Your task to perform on an android device: turn pop-ups off in chrome Image 0: 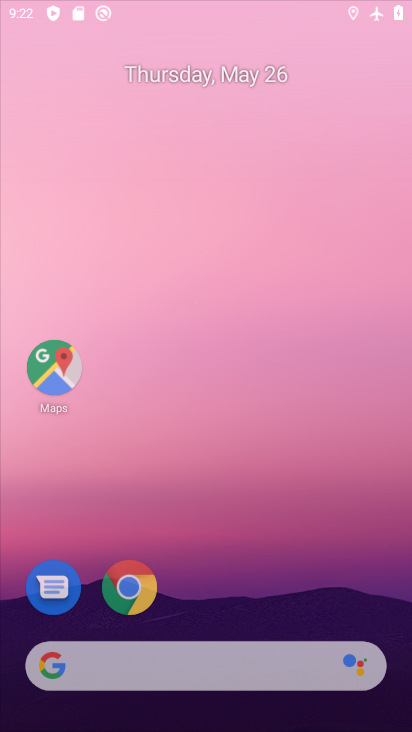
Step 0: drag from (299, 336) to (334, 95)
Your task to perform on an android device: turn pop-ups off in chrome Image 1: 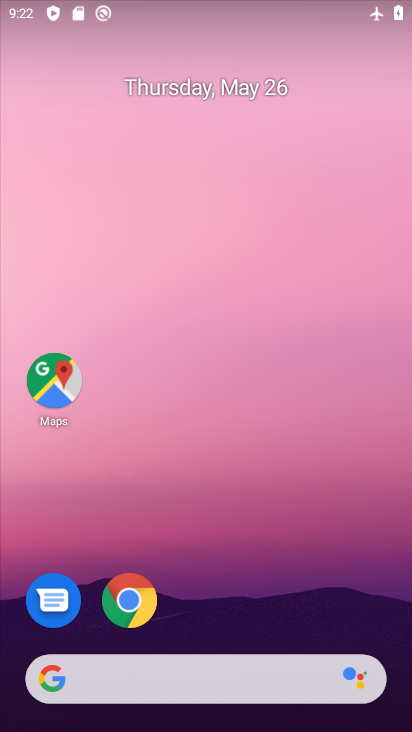
Step 1: drag from (255, 552) to (341, 144)
Your task to perform on an android device: turn pop-ups off in chrome Image 2: 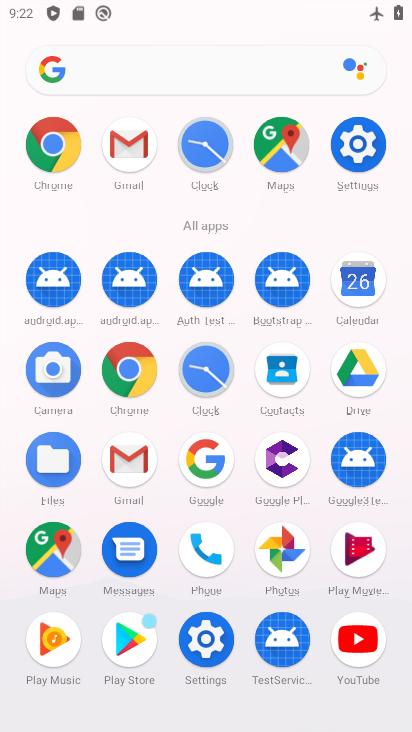
Step 2: click (71, 136)
Your task to perform on an android device: turn pop-ups off in chrome Image 3: 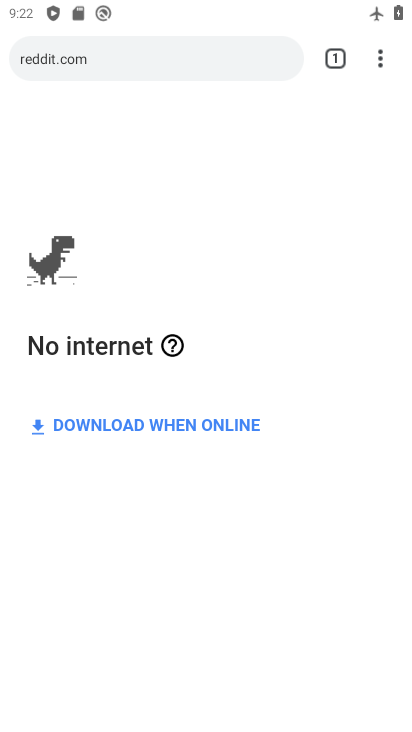
Step 3: drag from (387, 53) to (199, 626)
Your task to perform on an android device: turn pop-ups off in chrome Image 4: 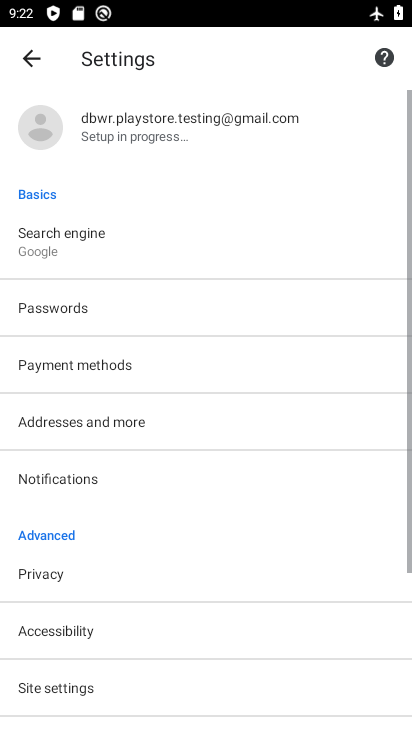
Step 4: drag from (208, 587) to (314, 95)
Your task to perform on an android device: turn pop-ups off in chrome Image 5: 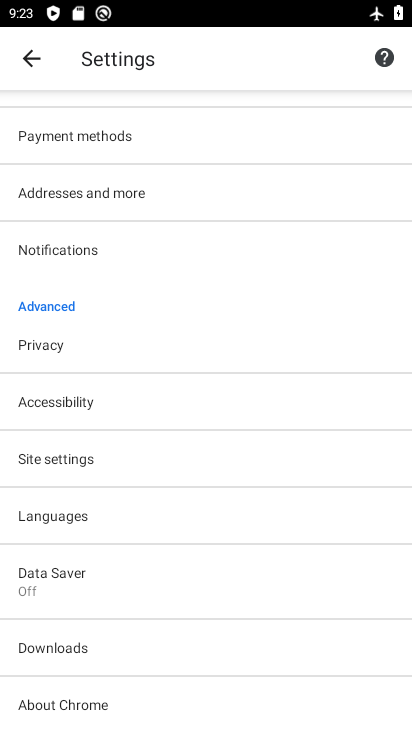
Step 5: click (84, 468)
Your task to perform on an android device: turn pop-ups off in chrome Image 6: 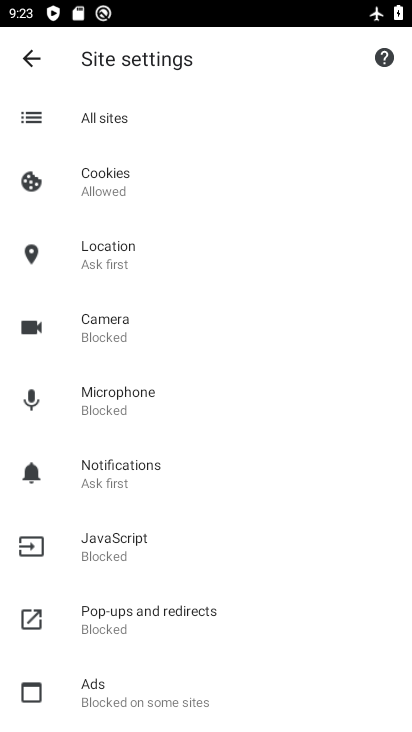
Step 6: drag from (260, 533) to (292, 251)
Your task to perform on an android device: turn pop-ups off in chrome Image 7: 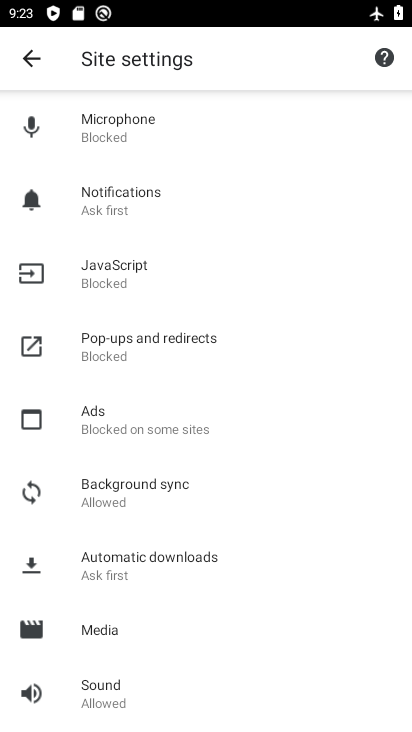
Step 7: click (153, 358)
Your task to perform on an android device: turn pop-ups off in chrome Image 8: 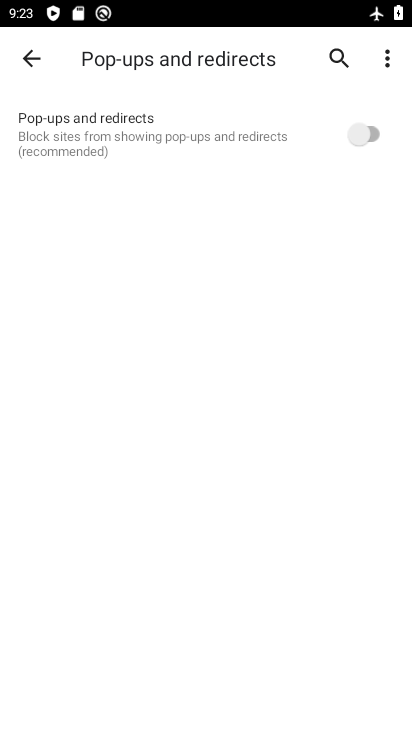
Step 8: task complete